Your task to perform on an android device: change keyboard looks Image 0: 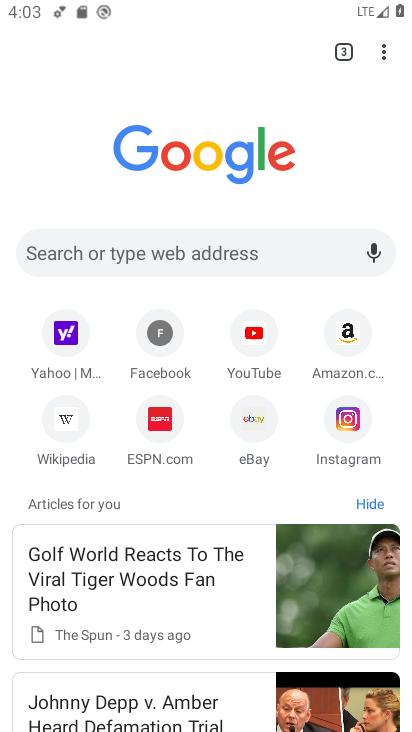
Step 0: press home button
Your task to perform on an android device: change keyboard looks Image 1: 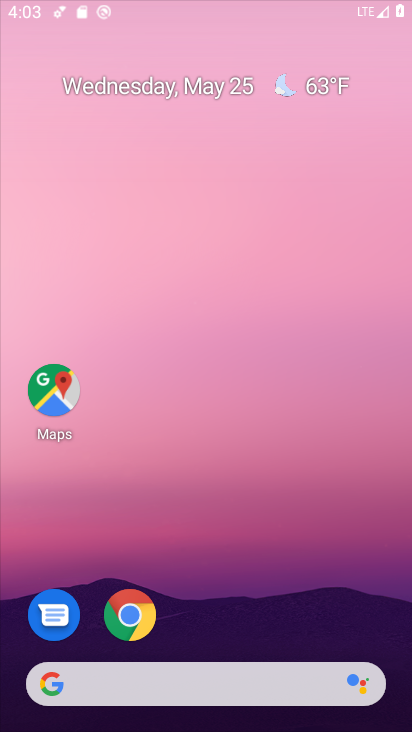
Step 1: drag from (314, 605) to (112, 3)
Your task to perform on an android device: change keyboard looks Image 2: 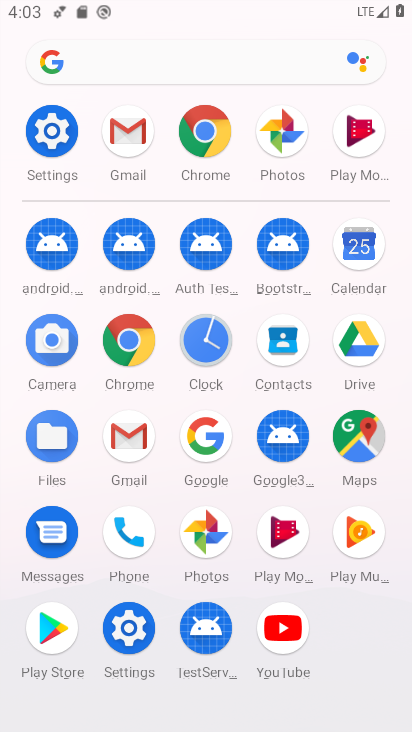
Step 2: click (48, 153)
Your task to perform on an android device: change keyboard looks Image 3: 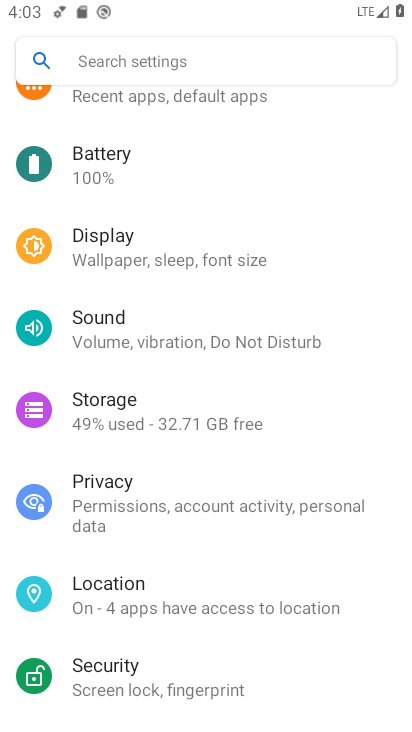
Step 3: drag from (257, 648) to (246, 3)
Your task to perform on an android device: change keyboard looks Image 4: 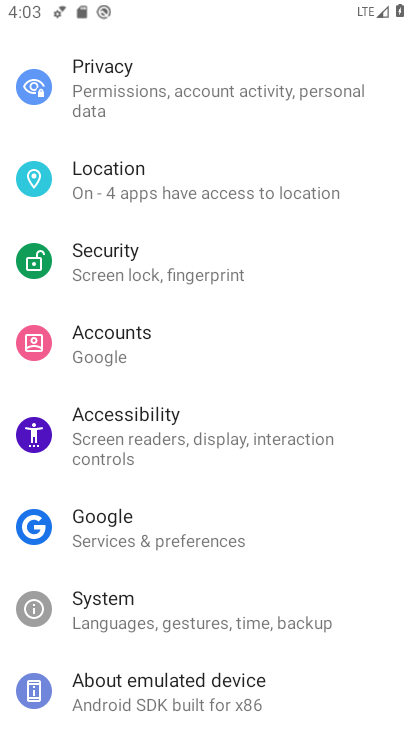
Step 4: click (225, 605)
Your task to perform on an android device: change keyboard looks Image 5: 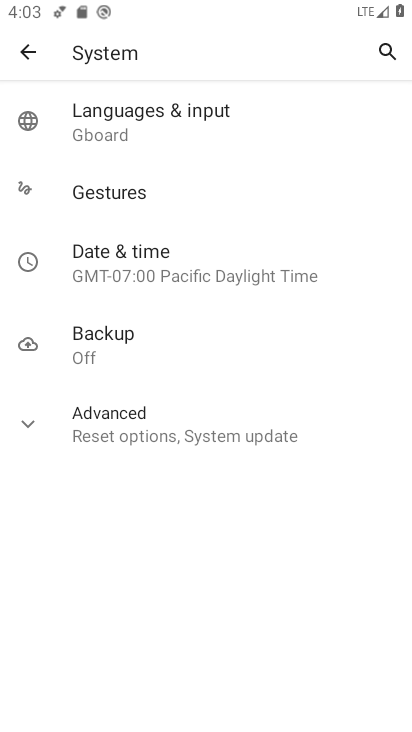
Step 5: click (127, 126)
Your task to perform on an android device: change keyboard looks Image 6: 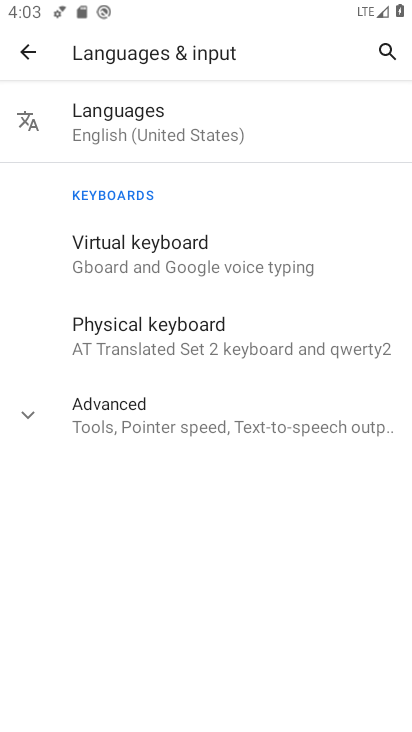
Step 6: click (126, 248)
Your task to perform on an android device: change keyboard looks Image 7: 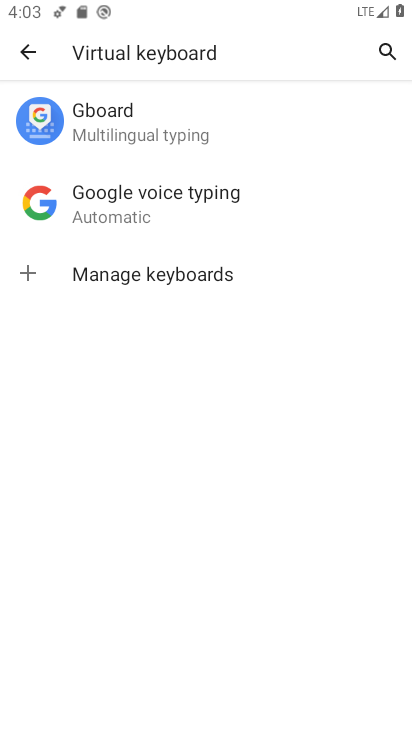
Step 7: click (155, 115)
Your task to perform on an android device: change keyboard looks Image 8: 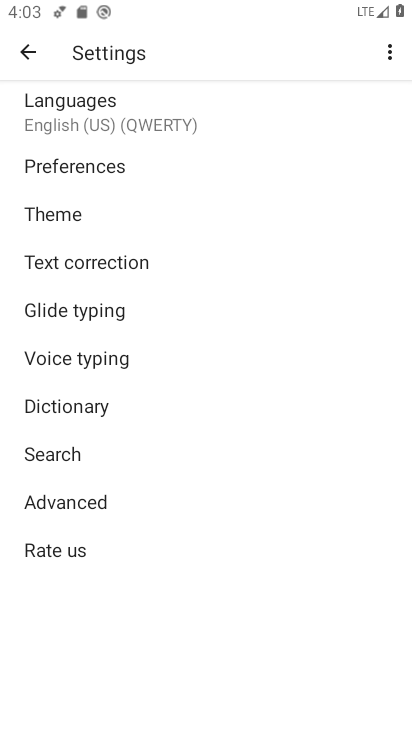
Step 8: click (124, 220)
Your task to perform on an android device: change keyboard looks Image 9: 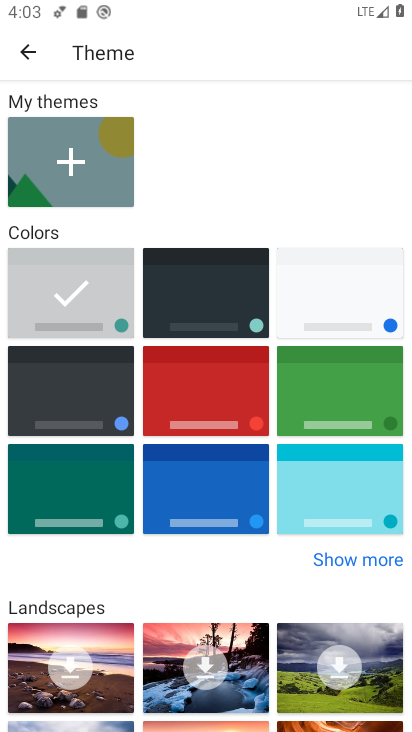
Step 9: click (208, 417)
Your task to perform on an android device: change keyboard looks Image 10: 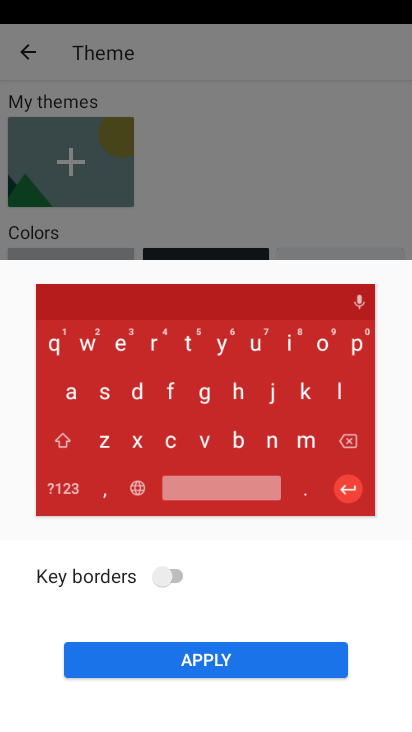
Step 10: click (223, 655)
Your task to perform on an android device: change keyboard looks Image 11: 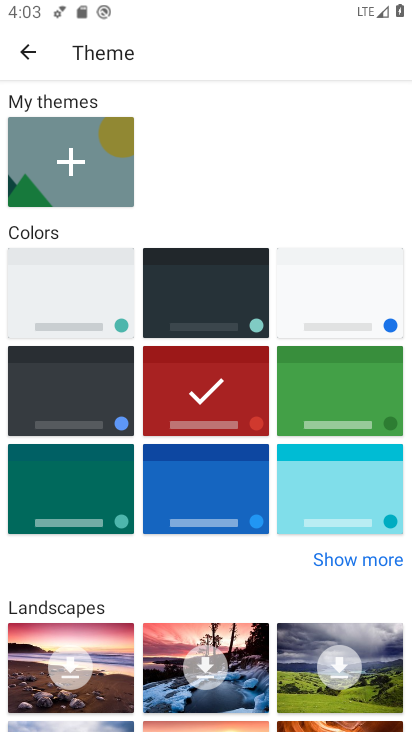
Step 11: task complete